Your task to perform on an android device: Open location settings Image 0: 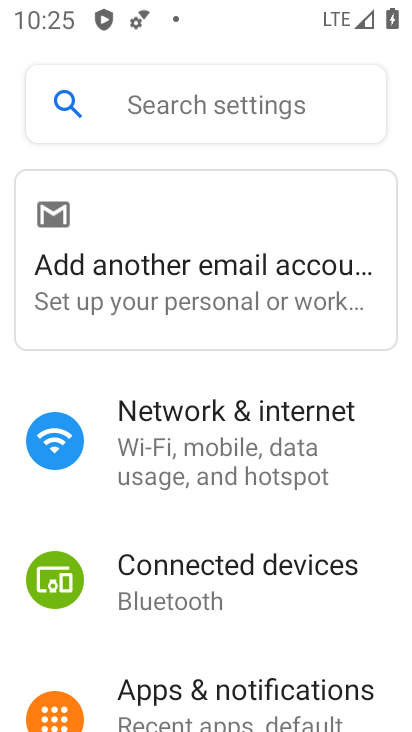
Step 0: drag from (178, 642) to (281, 93)
Your task to perform on an android device: Open location settings Image 1: 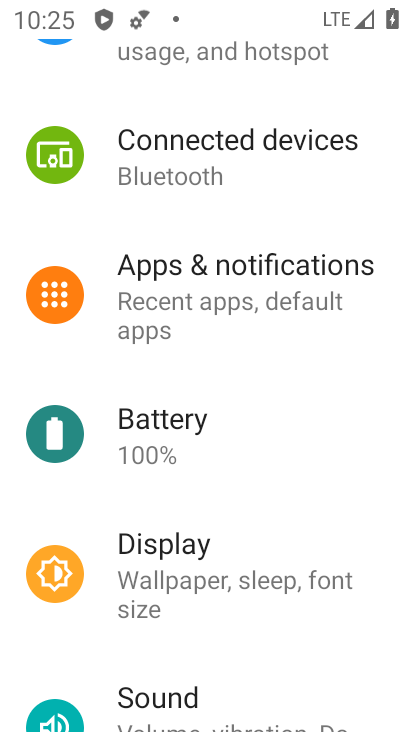
Step 1: drag from (193, 618) to (272, 137)
Your task to perform on an android device: Open location settings Image 2: 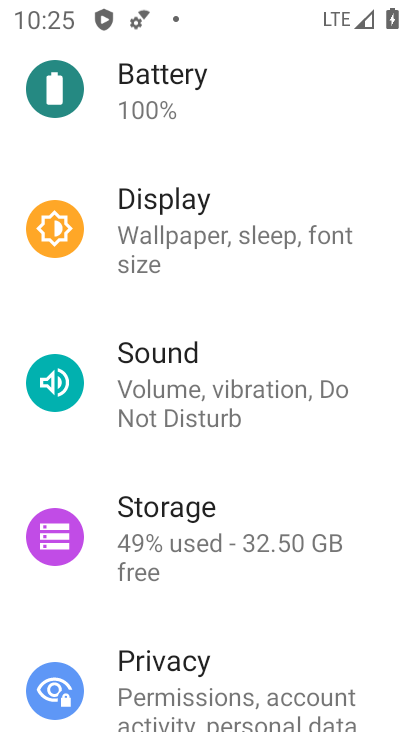
Step 2: drag from (201, 592) to (266, 166)
Your task to perform on an android device: Open location settings Image 3: 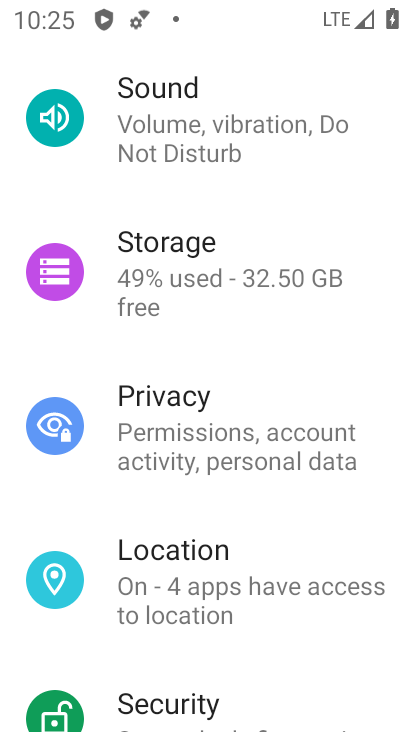
Step 3: click (174, 559)
Your task to perform on an android device: Open location settings Image 4: 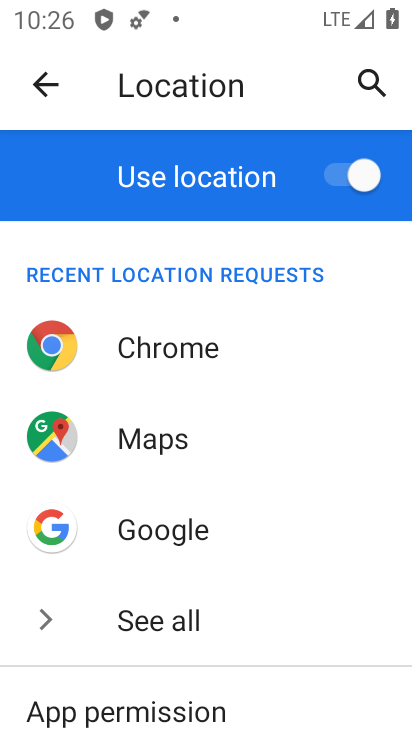
Step 4: task complete